Your task to perform on an android device: set an alarm Image 0: 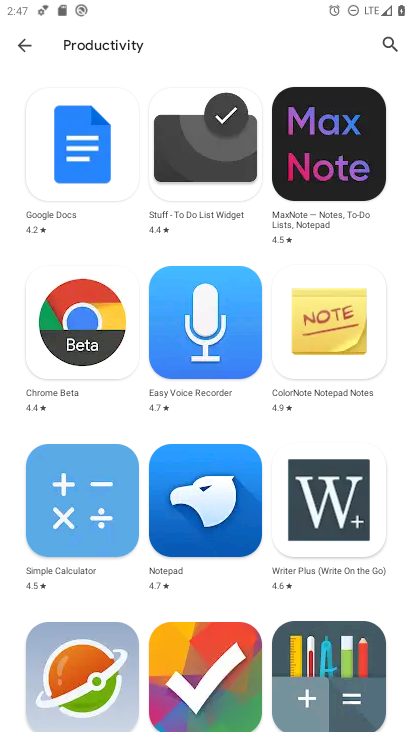
Step 0: press home button
Your task to perform on an android device: set an alarm Image 1: 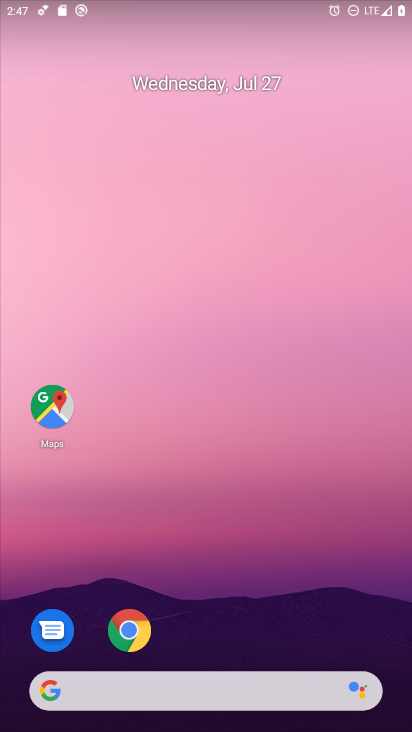
Step 1: drag from (370, 628) to (374, 30)
Your task to perform on an android device: set an alarm Image 2: 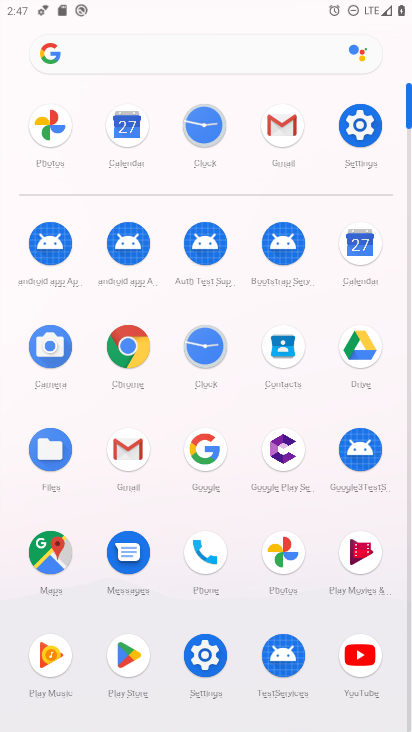
Step 2: click (205, 347)
Your task to perform on an android device: set an alarm Image 3: 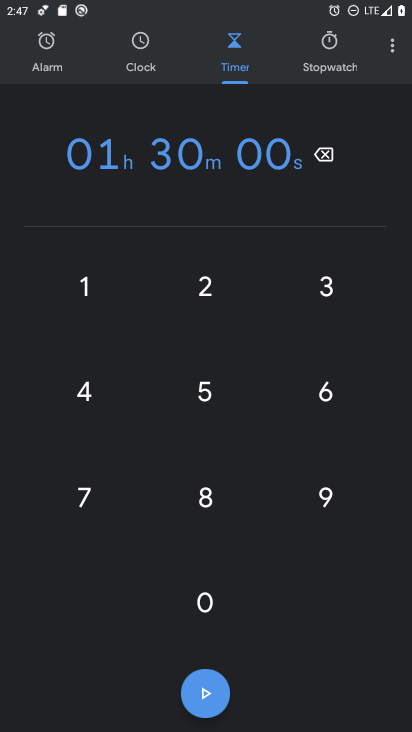
Step 3: click (45, 46)
Your task to perform on an android device: set an alarm Image 4: 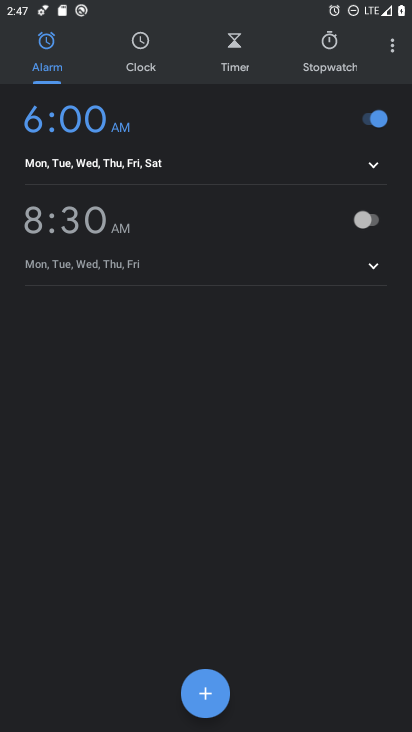
Step 4: click (81, 223)
Your task to perform on an android device: set an alarm Image 5: 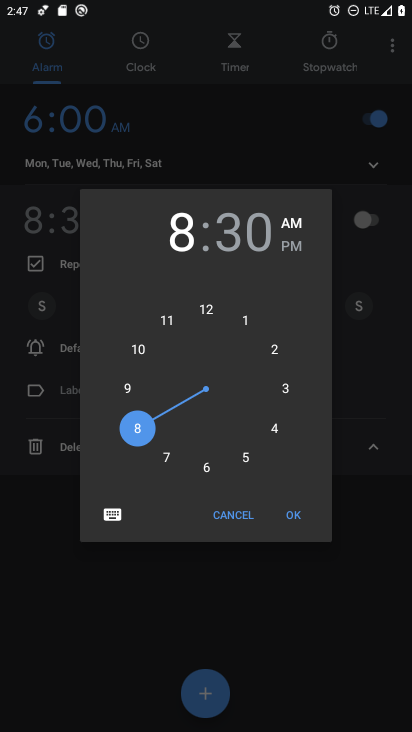
Step 5: click (206, 469)
Your task to perform on an android device: set an alarm Image 6: 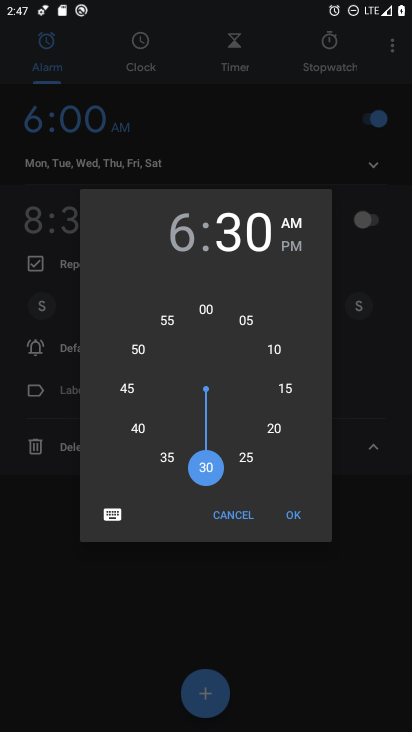
Step 6: click (288, 388)
Your task to perform on an android device: set an alarm Image 7: 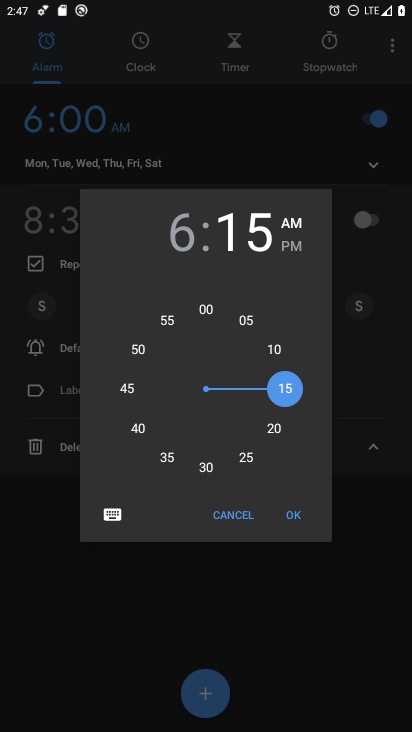
Step 7: click (295, 516)
Your task to perform on an android device: set an alarm Image 8: 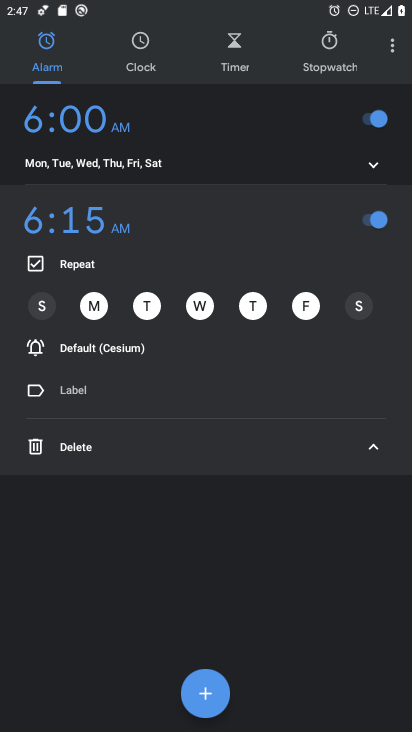
Step 8: click (359, 302)
Your task to perform on an android device: set an alarm Image 9: 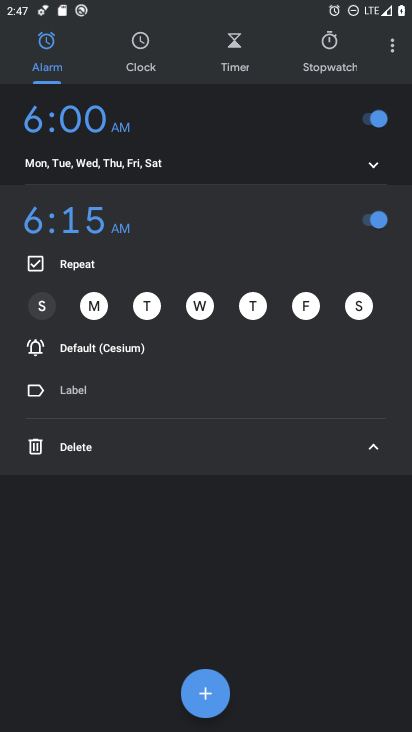
Step 9: click (374, 440)
Your task to perform on an android device: set an alarm Image 10: 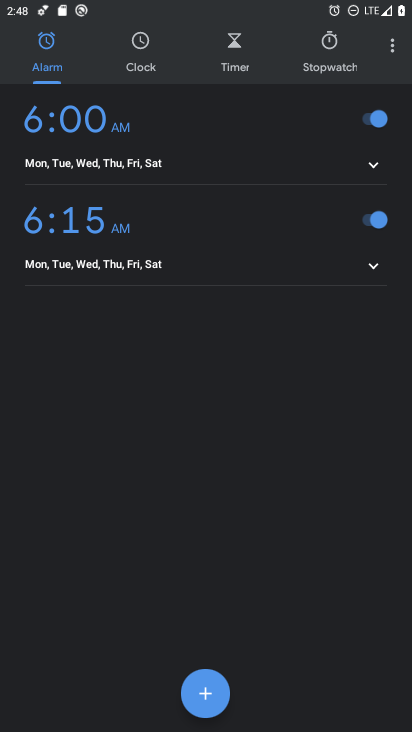
Step 10: task complete